Your task to perform on an android device: Open Reddit.com Image 0: 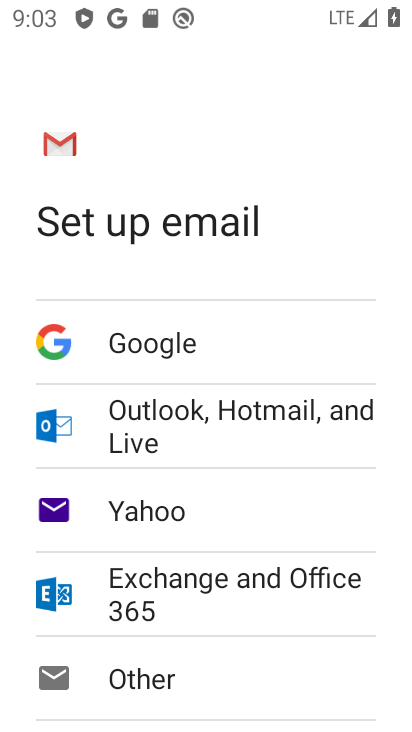
Step 0: press back button
Your task to perform on an android device: Open Reddit.com Image 1: 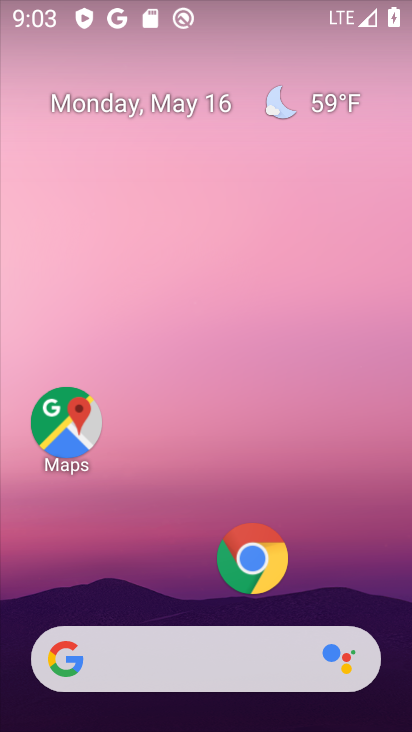
Step 1: click (261, 571)
Your task to perform on an android device: Open Reddit.com Image 2: 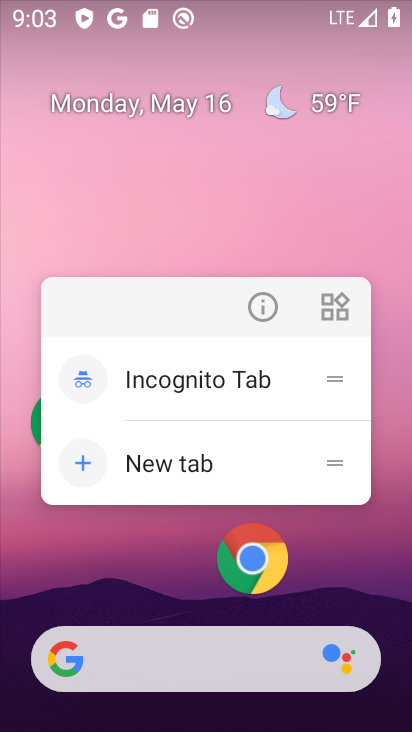
Step 2: click (252, 552)
Your task to perform on an android device: Open Reddit.com Image 3: 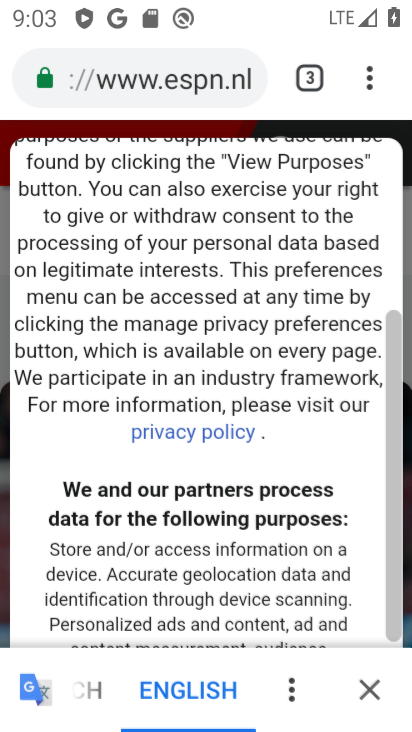
Step 3: click (310, 73)
Your task to perform on an android device: Open Reddit.com Image 4: 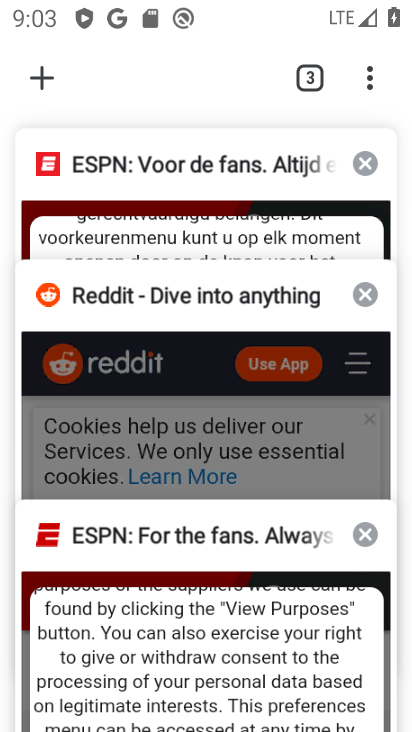
Step 4: click (120, 175)
Your task to perform on an android device: Open Reddit.com Image 5: 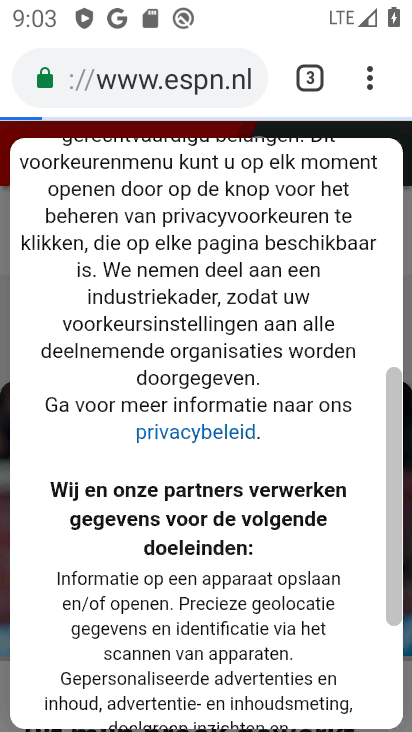
Step 5: click (316, 78)
Your task to perform on an android device: Open Reddit.com Image 6: 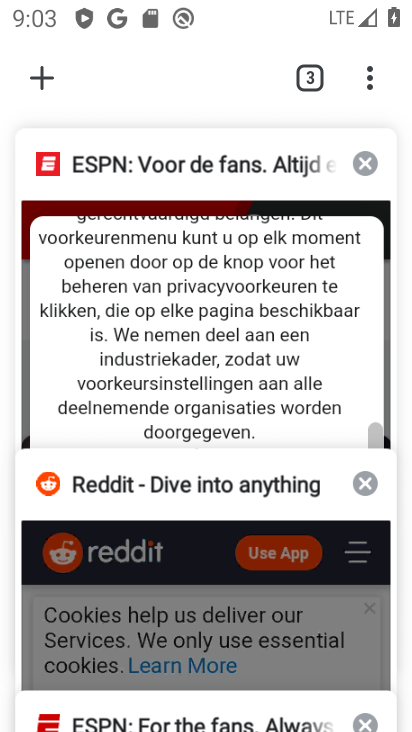
Step 6: click (96, 495)
Your task to perform on an android device: Open Reddit.com Image 7: 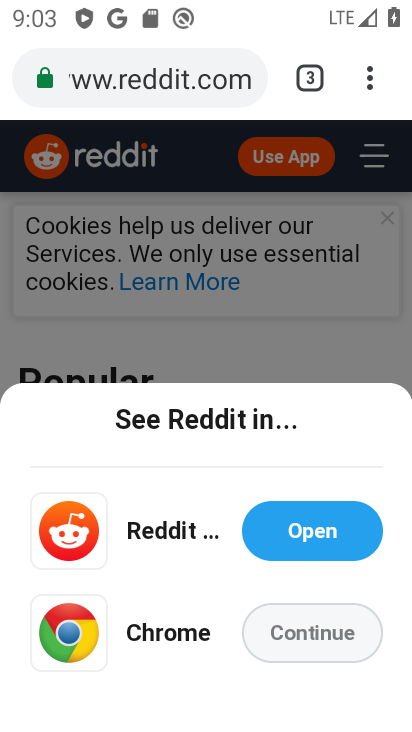
Step 7: task complete